Your task to perform on an android device: turn on sleep mode Image 0: 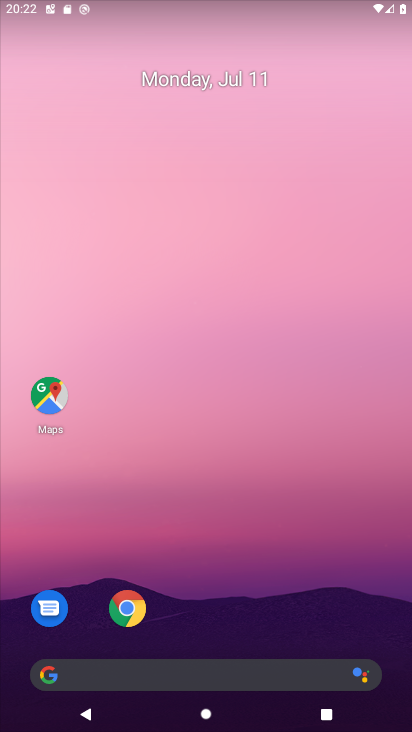
Step 0: drag from (307, 615) to (153, 5)
Your task to perform on an android device: turn on sleep mode Image 1: 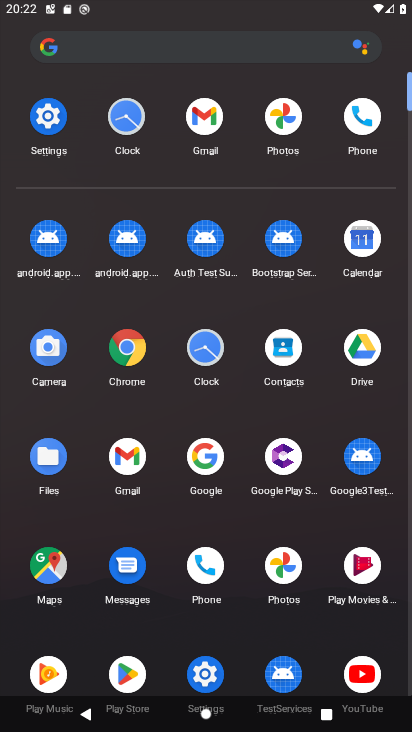
Step 1: click (204, 681)
Your task to perform on an android device: turn on sleep mode Image 2: 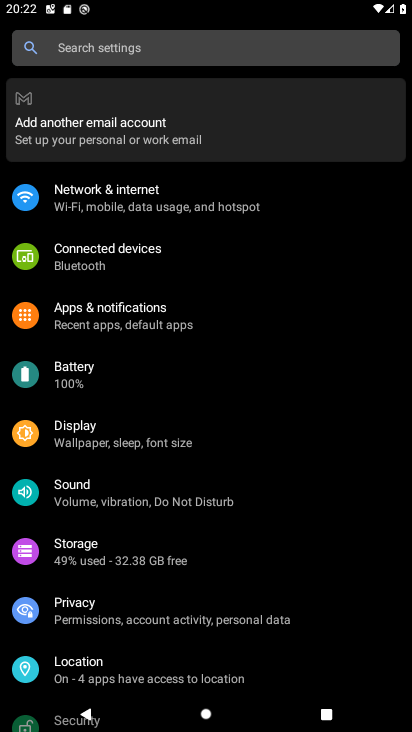
Step 2: click (171, 428)
Your task to perform on an android device: turn on sleep mode Image 3: 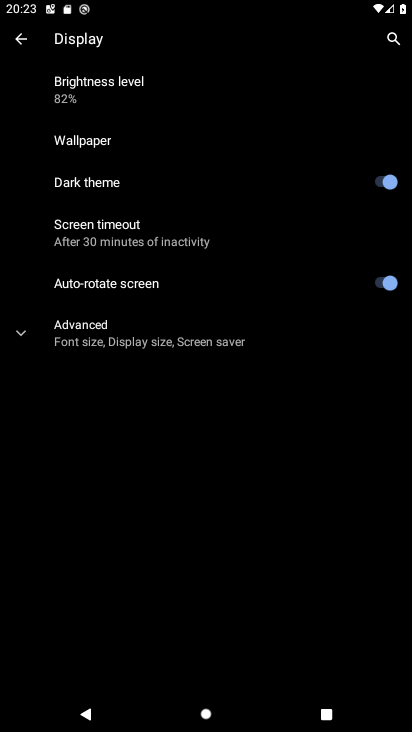
Step 3: click (132, 247)
Your task to perform on an android device: turn on sleep mode Image 4: 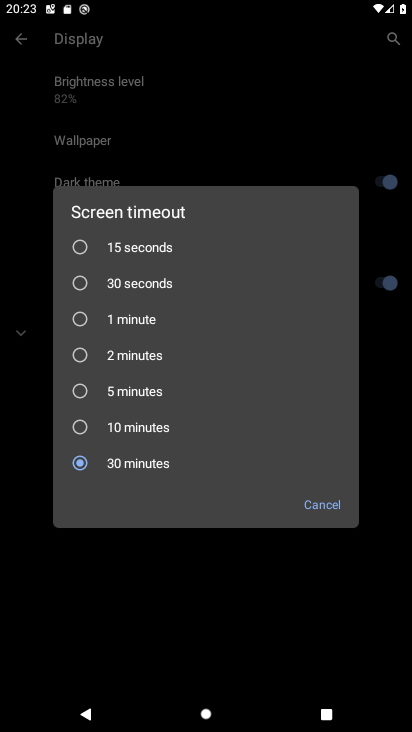
Step 4: click (167, 246)
Your task to perform on an android device: turn on sleep mode Image 5: 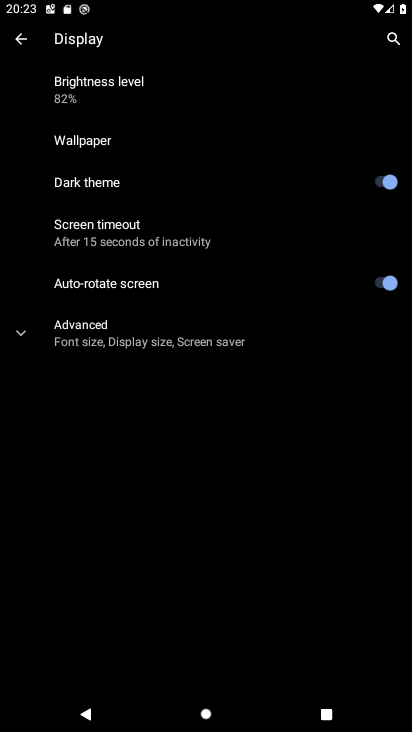
Step 5: task complete